Your task to perform on an android device: open chrome and create a bookmark for the current page Image 0: 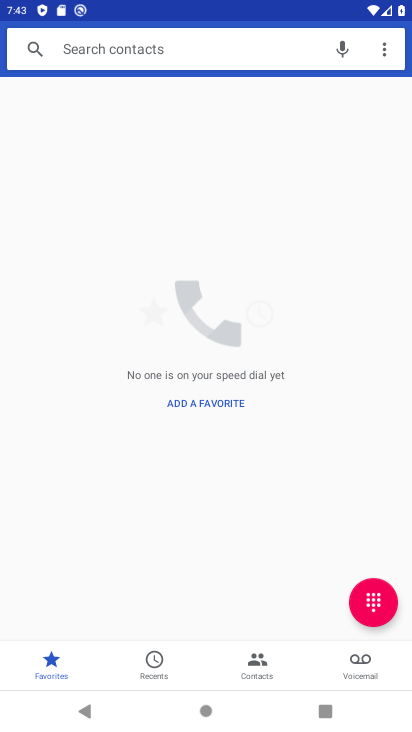
Step 0: press home button
Your task to perform on an android device: open chrome and create a bookmark for the current page Image 1: 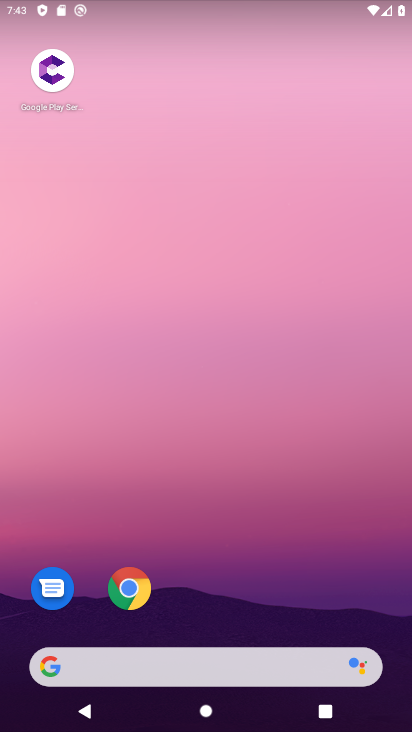
Step 1: click (145, 585)
Your task to perform on an android device: open chrome and create a bookmark for the current page Image 2: 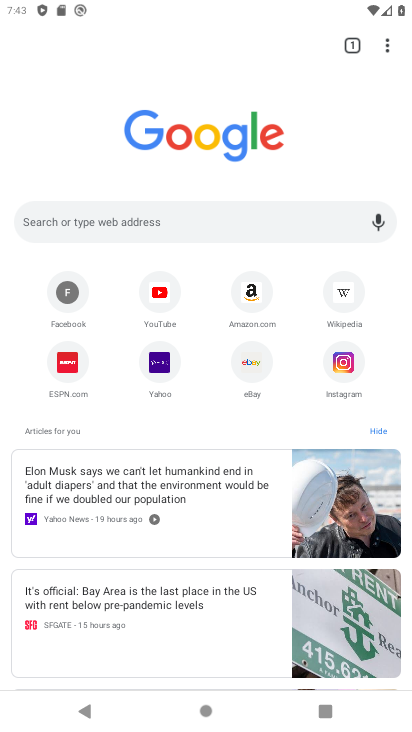
Step 2: click (384, 38)
Your task to perform on an android device: open chrome and create a bookmark for the current page Image 3: 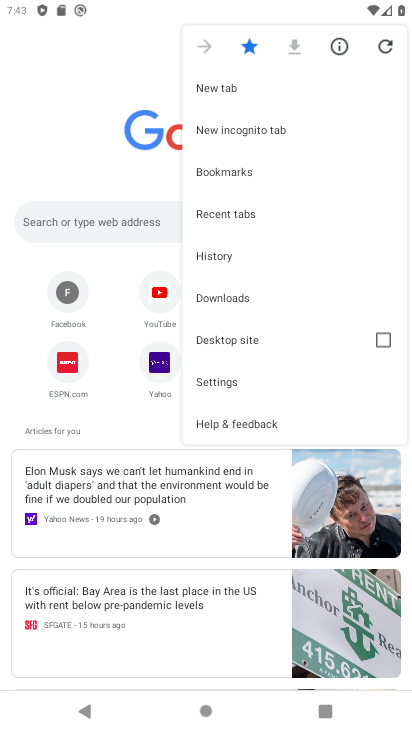
Step 3: click (120, 96)
Your task to perform on an android device: open chrome and create a bookmark for the current page Image 4: 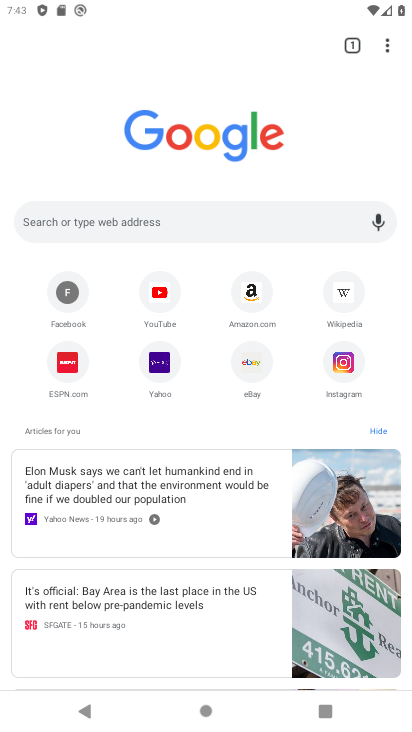
Step 4: task complete